Your task to perform on an android device: open sync settings in chrome Image 0: 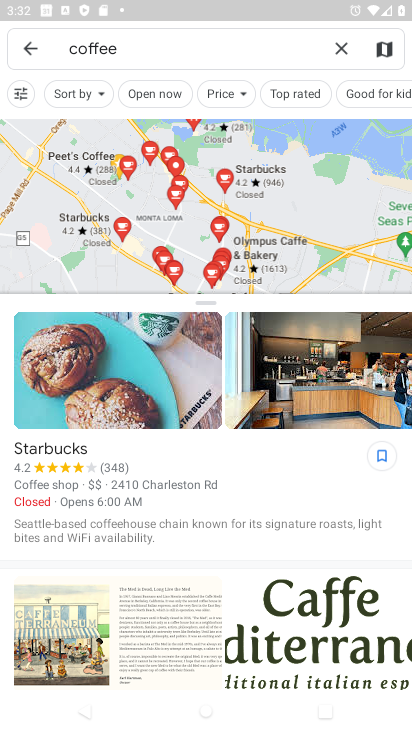
Step 0: press home button
Your task to perform on an android device: open sync settings in chrome Image 1: 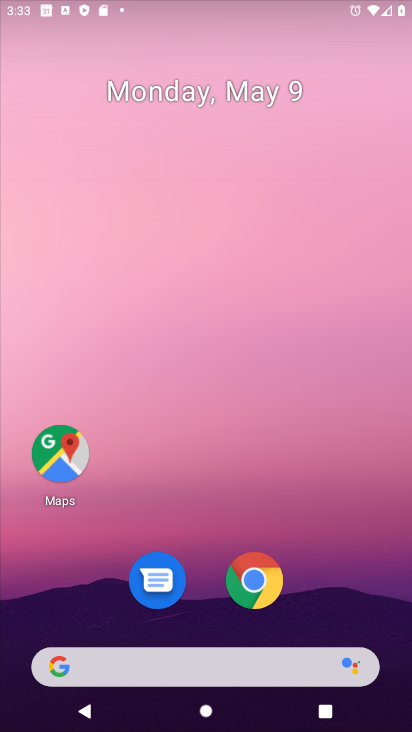
Step 1: click (264, 578)
Your task to perform on an android device: open sync settings in chrome Image 2: 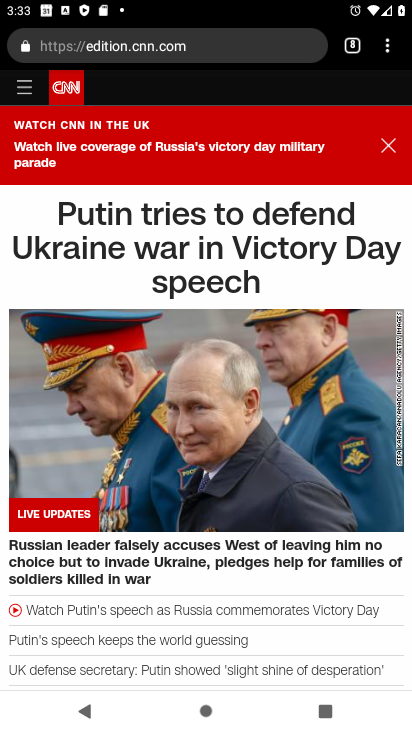
Step 2: click (383, 53)
Your task to perform on an android device: open sync settings in chrome Image 3: 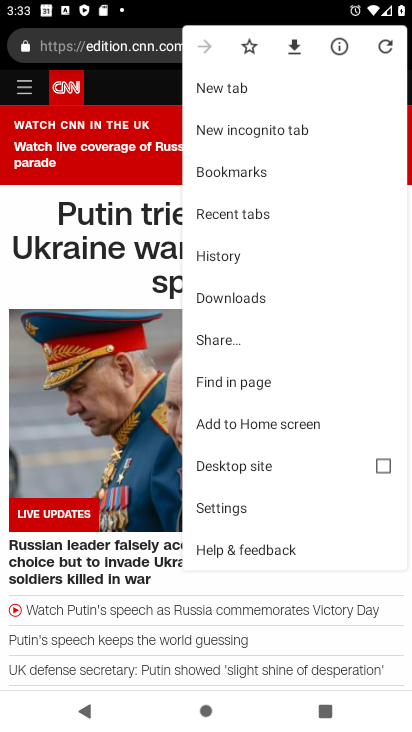
Step 3: click (256, 509)
Your task to perform on an android device: open sync settings in chrome Image 4: 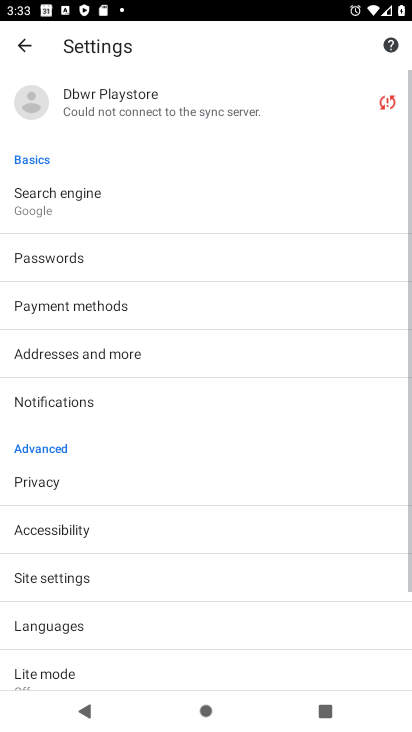
Step 4: click (92, 585)
Your task to perform on an android device: open sync settings in chrome Image 5: 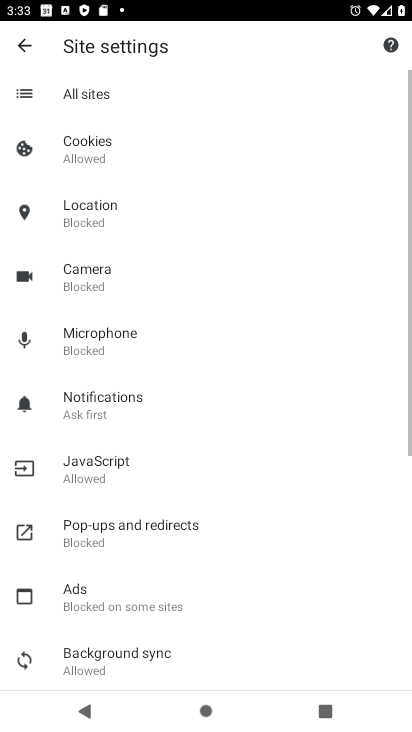
Step 5: click (129, 652)
Your task to perform on an android device: open sync settings in chrome Image 6: 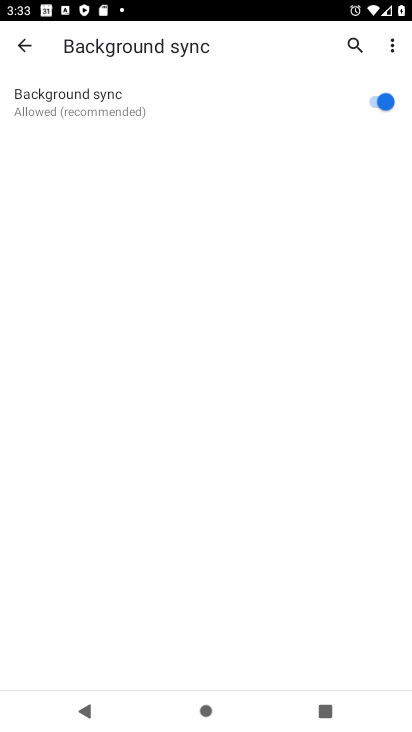
Step 6: task complete